Your task to perform on an android device: Toggle the flashlight Image 0: 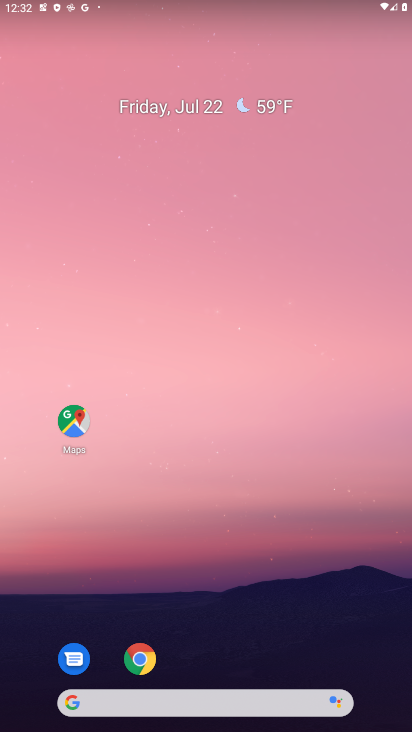
Step 0: drag from (287, 626) to (358, 92)
Your task to perform on an android device: Toggle the flashlight Image 1: 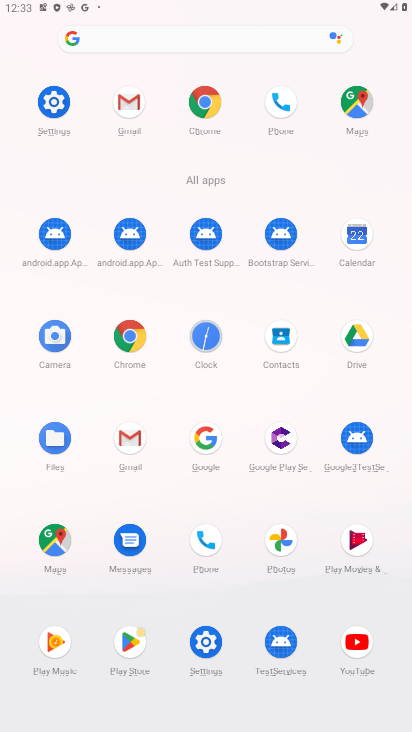
Step 1: click (49, 95)
Your task to perform on an android device: Toggle the flashlight Image 2: 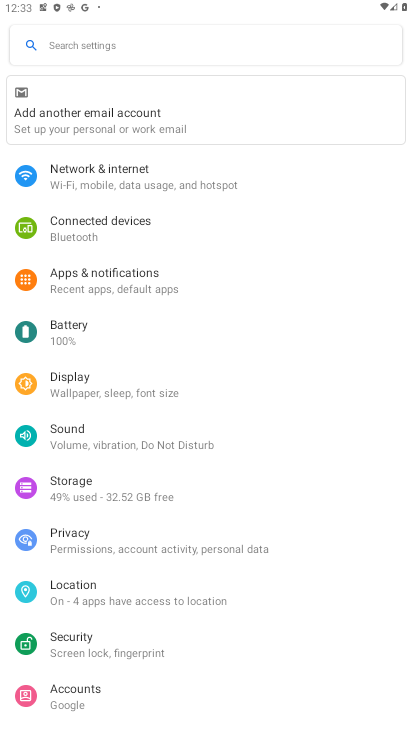
Step 2: task complete